Your task to perform on an android device: change the upload size in google photos Image 0: 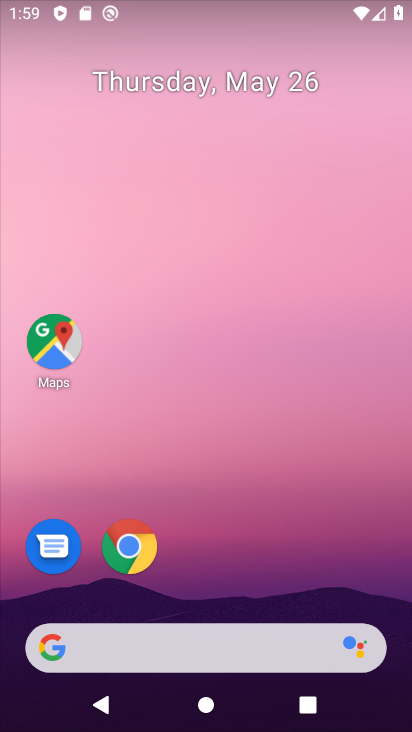
Step 0: drag from (234, 570) to (307, 34)
Your task to perform on an android device: change the upload size in google photos Image 1: 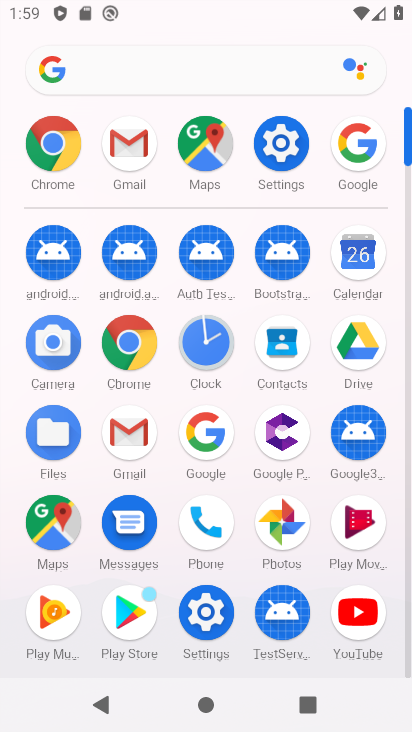
Step 1: click (284, 514)
Your task to perform on an android device: change the upload size in google photos Image 2: 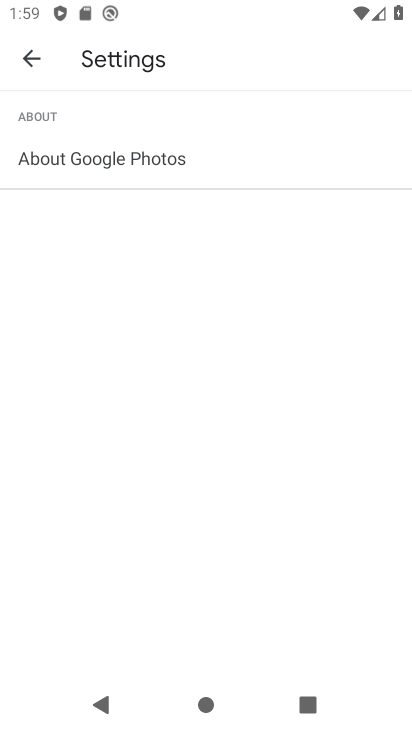
Step 2: press back button
Your task to perform on an android device: change the upload size in google photos Image 3: 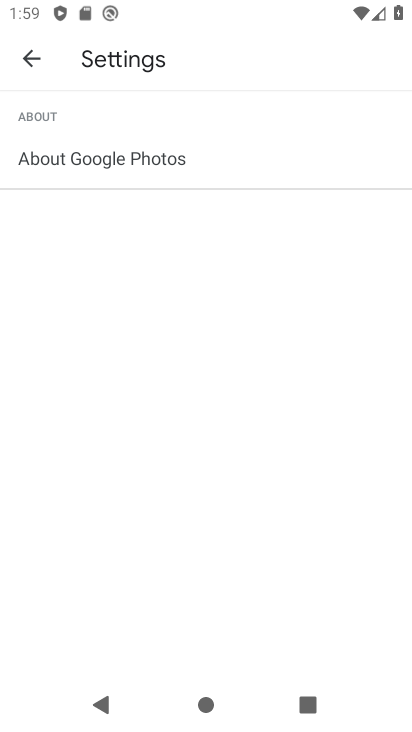
Step 3: press back button
Your task to perform on an android device: change the upload size in google photos Image 4: 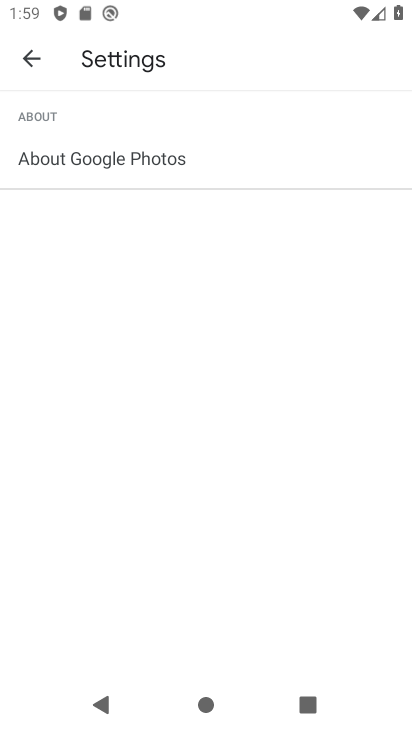
Step 4: press back button
Your task to perform on an android device: change the upload size in google photos Image 5: 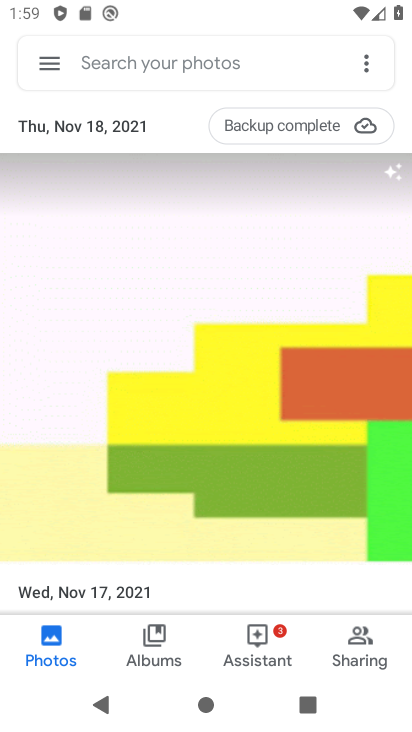
Step 5: click (43, 43)
Your task to perform on an android device: change the upload size in google photos Image 6: 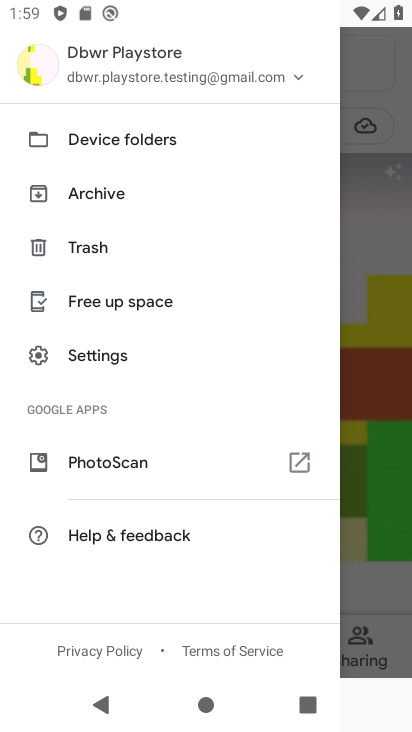
Step 6: click (98, 356)
Your task to perform on an android device: change the upload size in google photos Image 7: 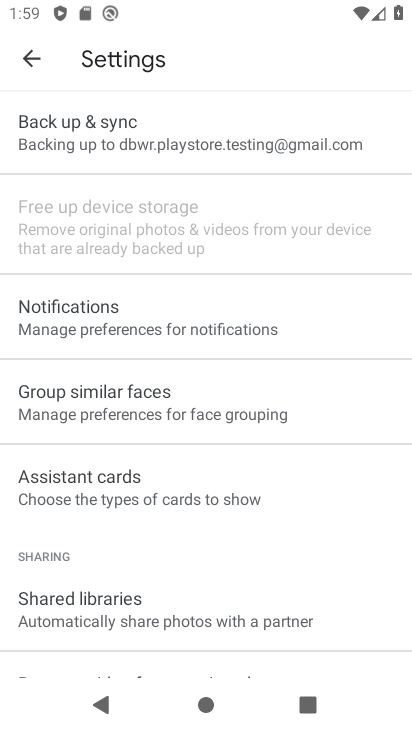
Step 7: drag from (139, 515) to (192, 562)
Your task to perform on an android device: change the upload size in google photos Image 8: 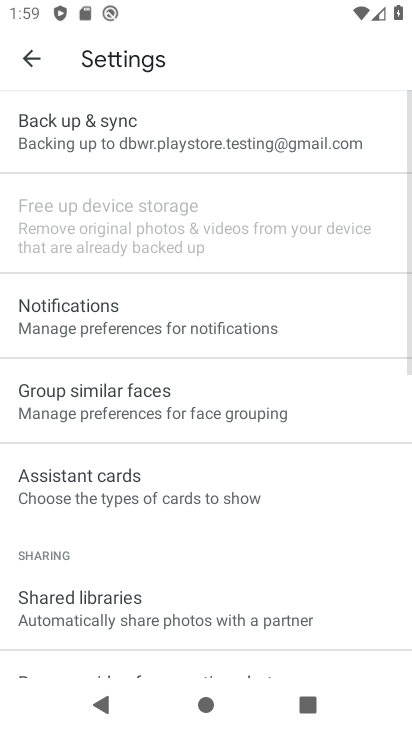
Step 8: click (132, 126)
Your task to perform on an android device: change the upload size in google photos Image 9: 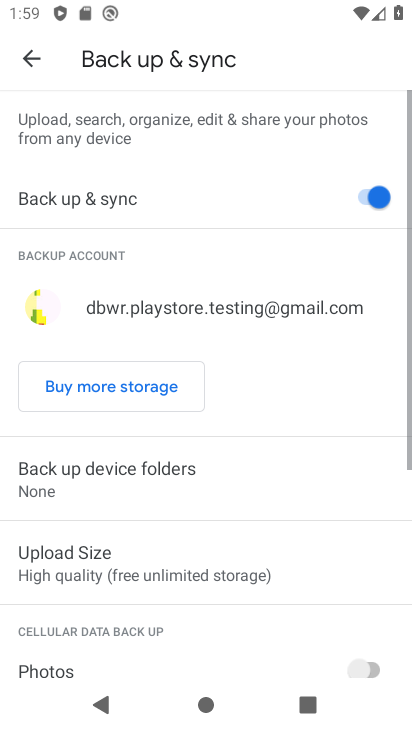
Step 9: drag from (229, 515) to (233, 334)
Your task to perform on an android device: change the upload size in google photos Image 10: 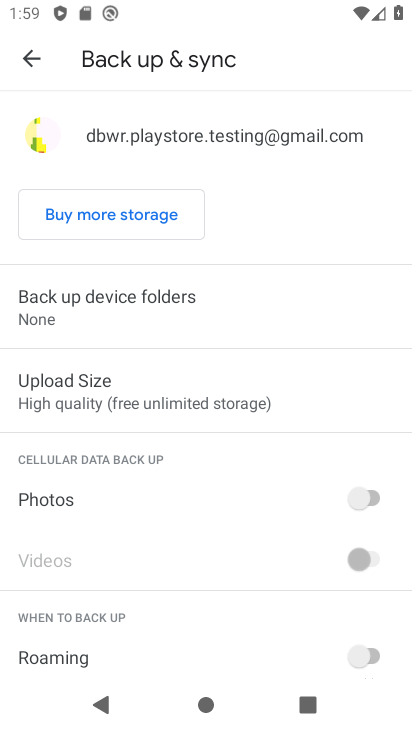
Step 10: click (152, 399)
Your task to perform on an android device: change the upload size in google photos Image 11: 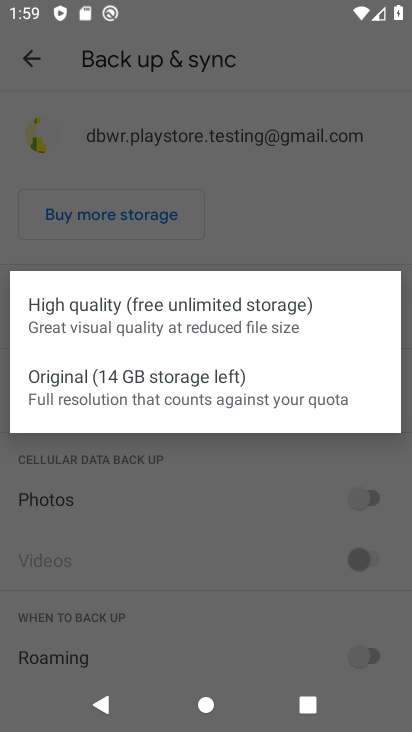
Step 11: click (99, 390)
Your task to perform on an android device: change the upload size in google photos Image 12: 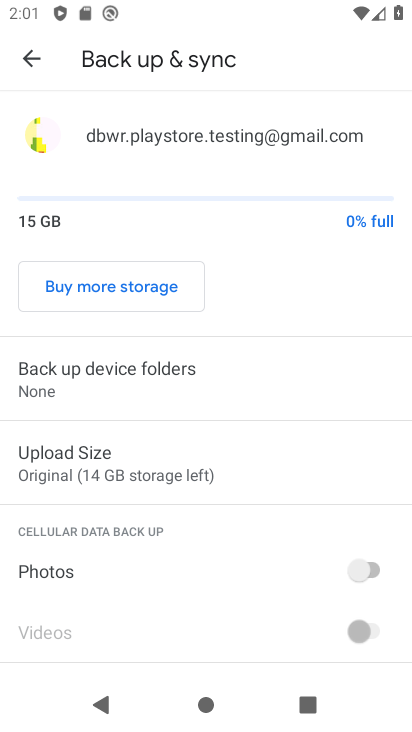
Step 12: task complete